Your task to perform on an android device: turn vacation reply on in the gmail app Image 0: 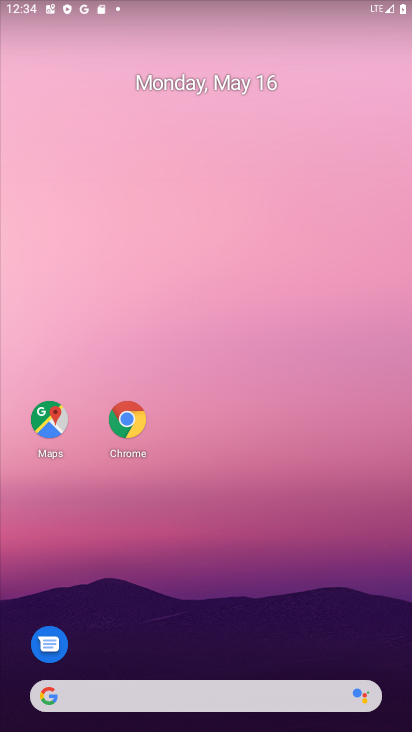
Step 0: drag from (205, 622) to (243, 151)
Your task to perform on an android device: turn vacation reply on in the gmail app Image 1: 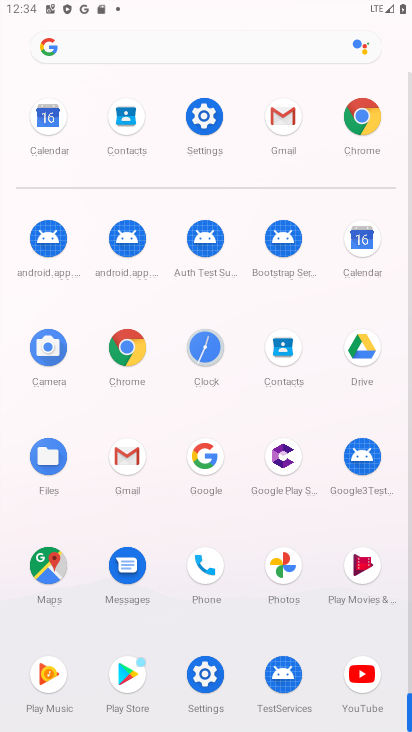
Step 1: click (119, 464)
Your task to perform on an android device: turn vacation reply on in the gmail app Image 2: 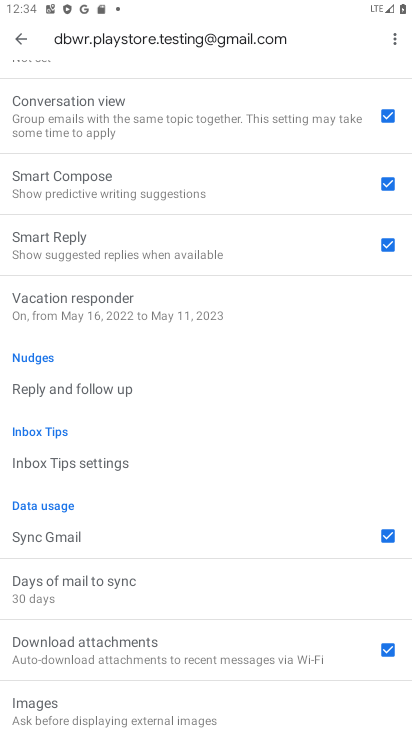
Step 2: click (139, 304)
Your task to perform on an android device: turn vacation reply on in the gmail app Image 3: 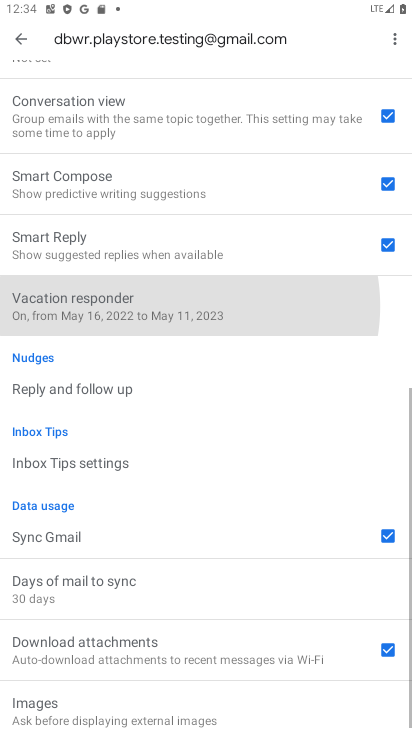
Step 3: click (138, 304)
Your task to perform on an android device: turn vacation reply on in the gmail app Image 4: 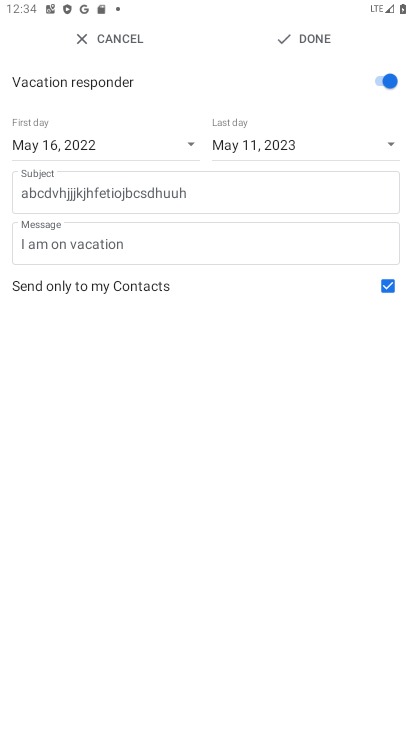
Step 4: click (300, 33)
Your task to perform on an android device: turn vacation reply on in the gmail app Image 5: 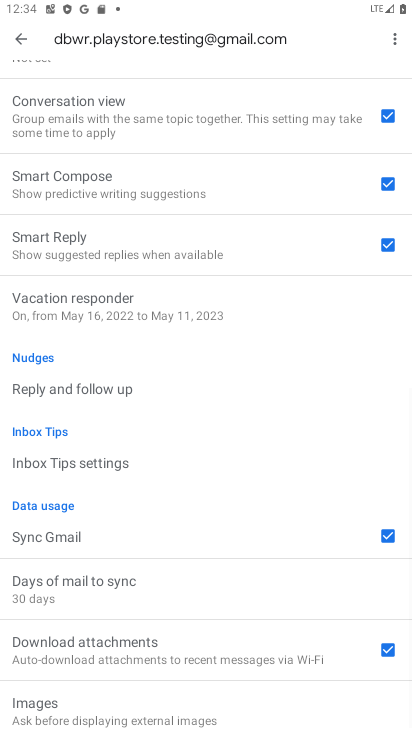
Step 5: task complete